Your task to perform on an android device: toggle data saver in the chrome app Image 0: 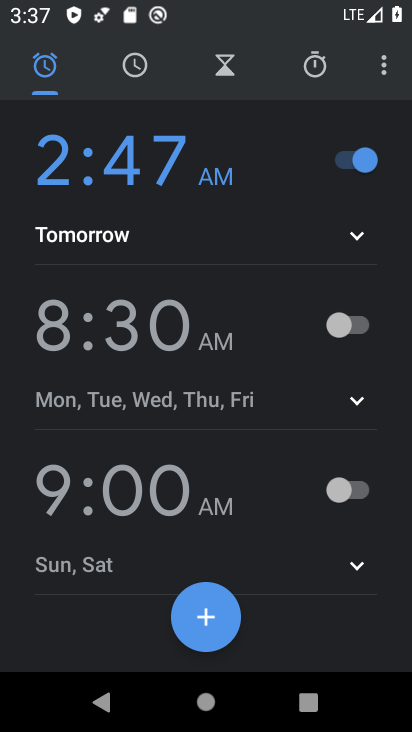
Step 0: press home button
Your task to perform on an android device: toggle data saver in the chrome app Image 1: 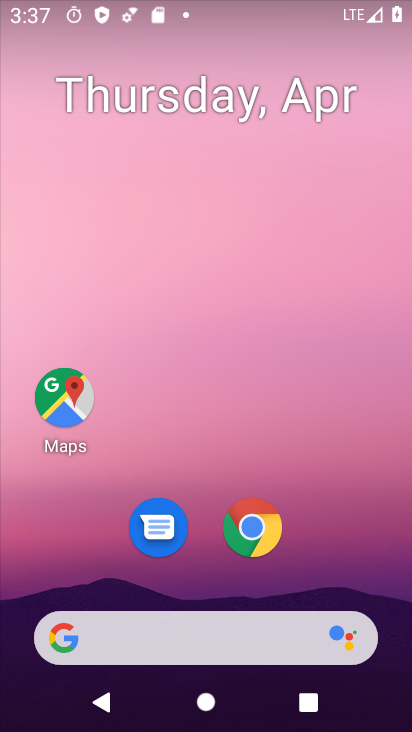
Step 1: click (265, 521)
Your task to perform on an android device: toggle data saver in the chrome app Image 2: 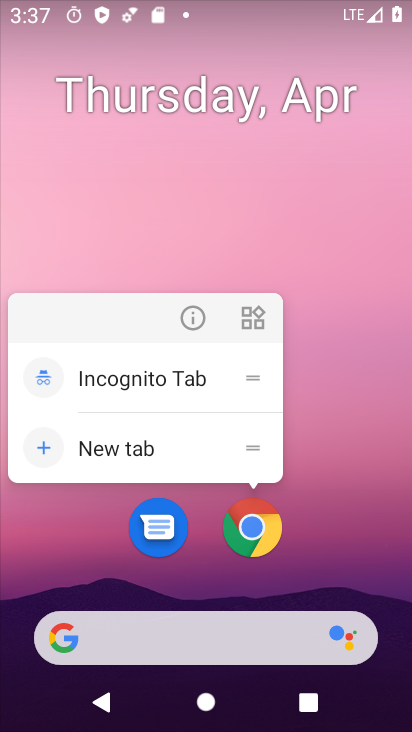
Step 2: click (254, 523)
Your task to perform on an android device: toggle data saver in the chrome app Image 3: 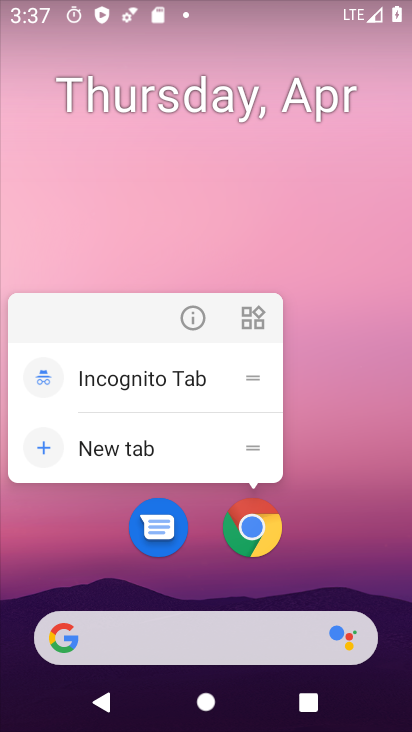
Step 3: click (253, 524)
Your task to perform on an android device: toggle data saver in the chrome app Image 4: 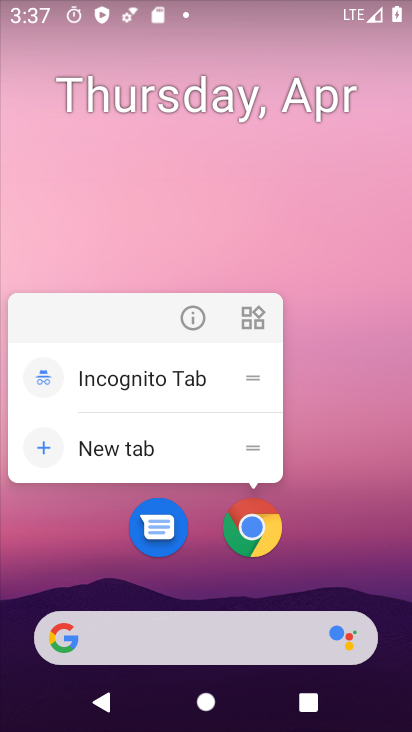
Step 4: click (253, 524)
Your task to perform on an android device: toggle data saver in the chrome app Image 5: 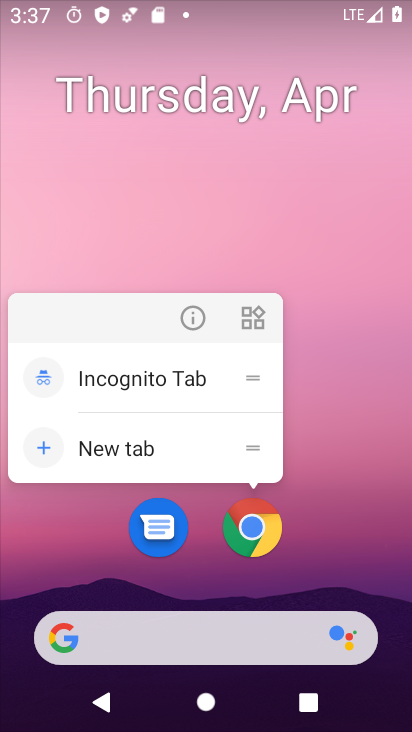
Step 5: click (248, 531)
Your task to perform on an android device: toggle data saver in the chrome app Image 6: 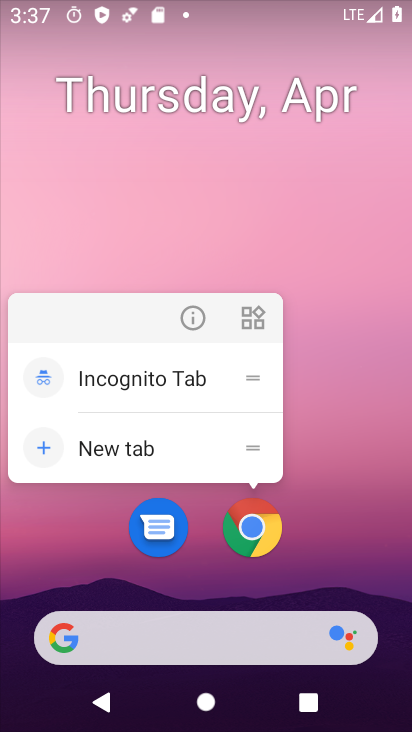
Step 6: drag from (333, 562) to (266, 64)
Your task to perform on an android device: toggle data saver in the chrome app Image 7: 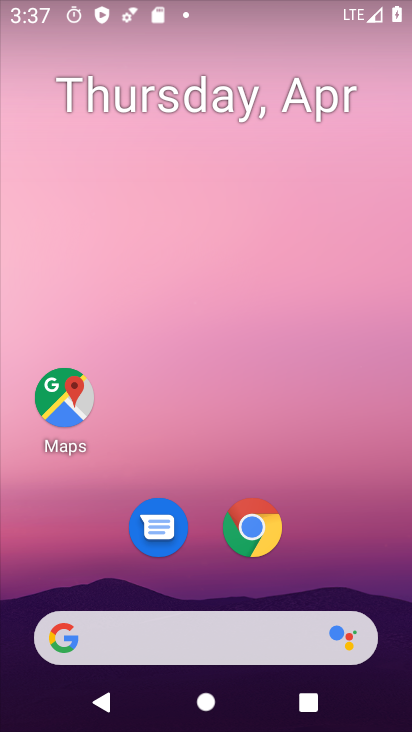
Step 7: drag from (340, 462) to (300, 68)
Your task to perform on an android device: toggle data saver in the chrome app Image 8: 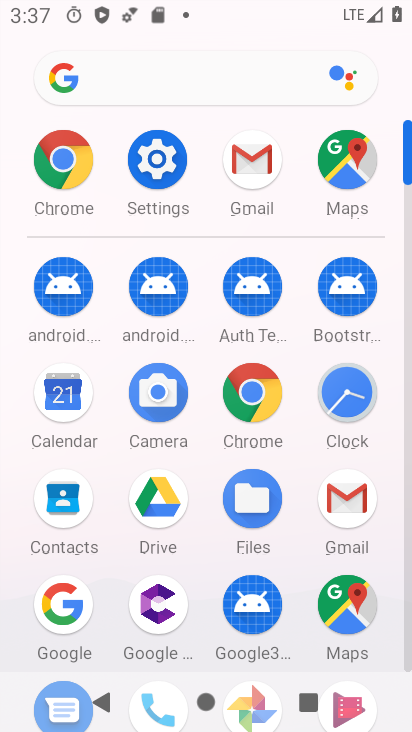
Step 8: click (247, 404)
Your task to perform on an android device: toggle data saver in the chrome app Image 9: 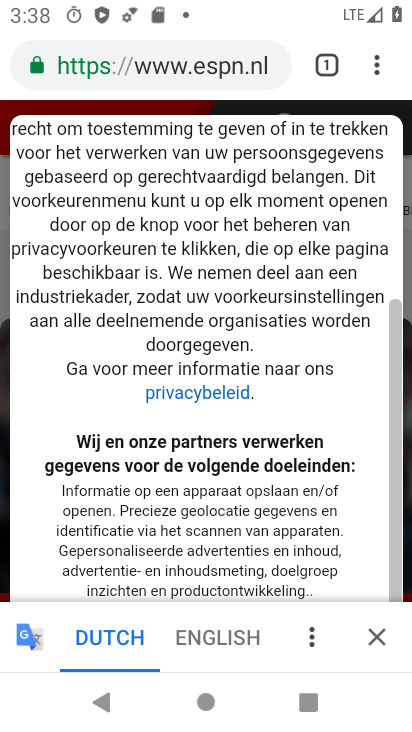
Step 9: drag from (370, 63) to (179, 578)
Your task to perform on an android device: toggle data saver in the chrome app Image 10: 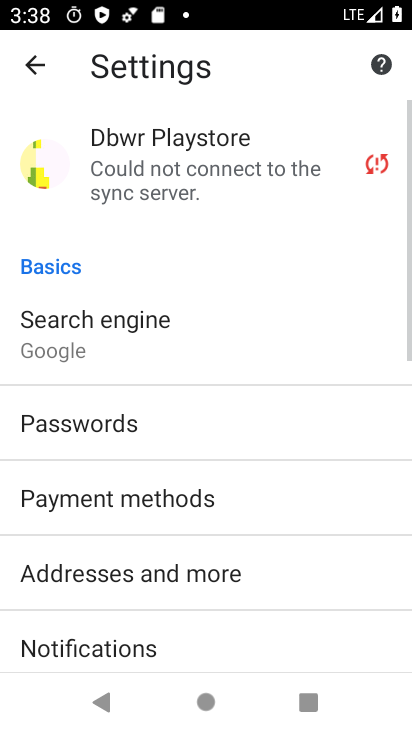
Step 10: drag from (253, 498) to (283, 208)
Your task to perform on an android device: toggle data saver in the chrome app Image 11: 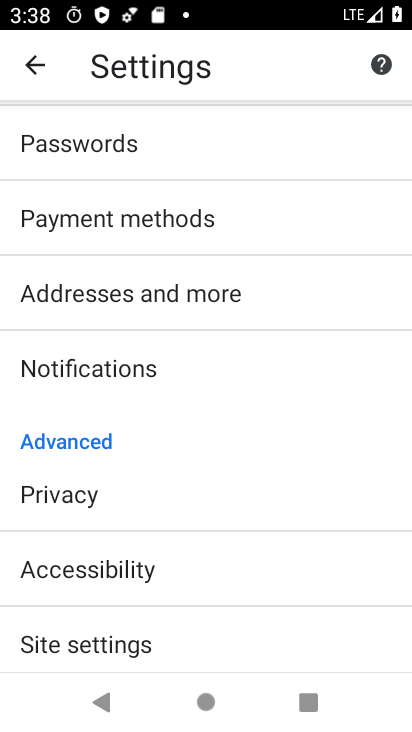
Step 11: drag from (180, 504) to (251, 267)
Your task to perform on an android device: toggle data saver in the chrome app Image 12: 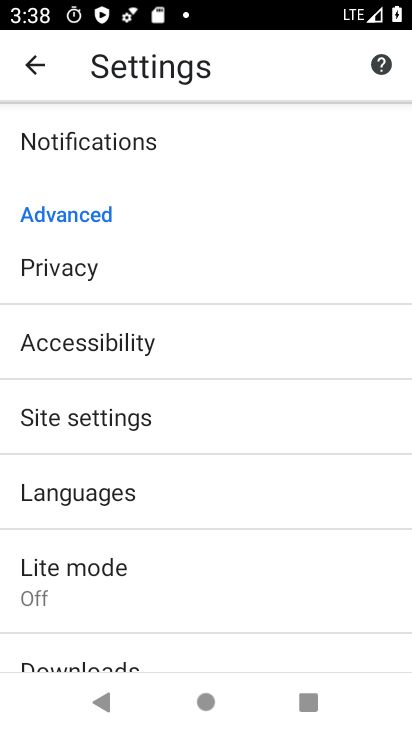
Step 12: click (93, 577)
Your task to perform on an android device: toggle data saver in the chrome app Image 13: 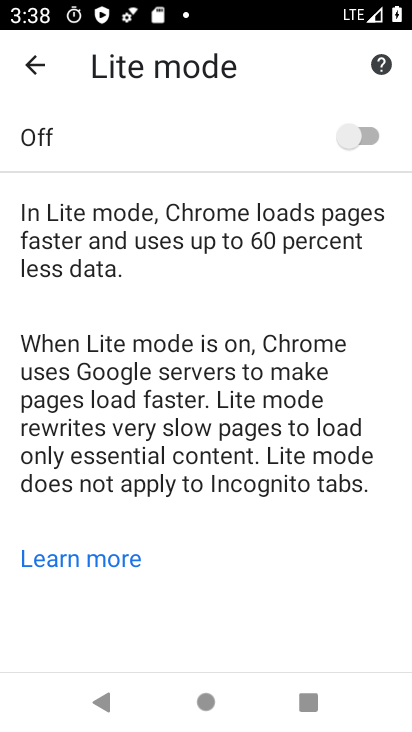
Step 13: click (355, 146)
Your task to perform on an android device: toggle data saver in the chrome app Image 14: 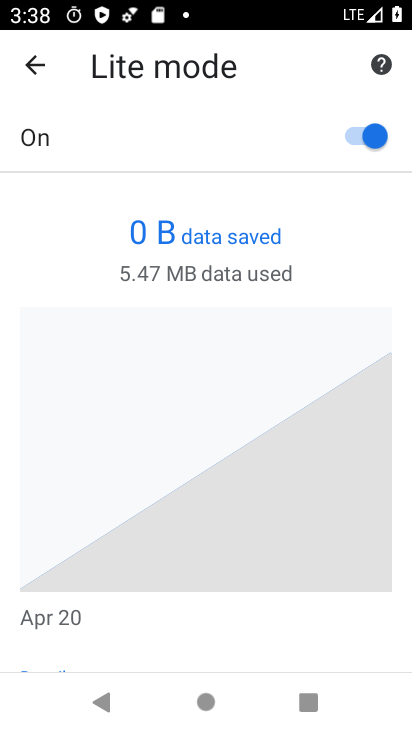
Step 14: task complete